Your task to perform on an android device: change the clock display to digital Image 0: 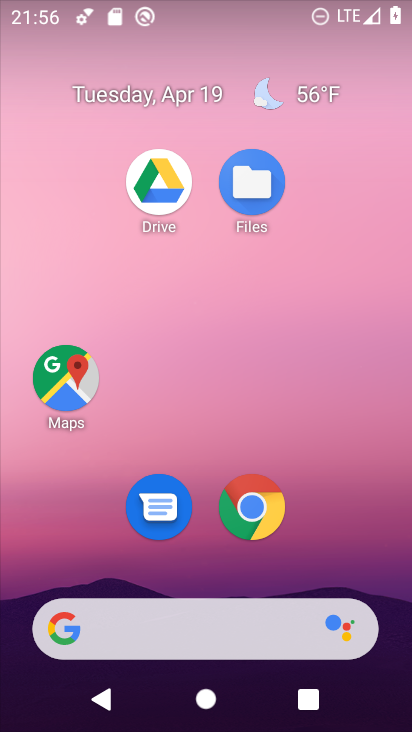
Step 0: drag from (355, 259) to (364, 77)
Your task to perform on an android device: change the clock display to digital Image 1: 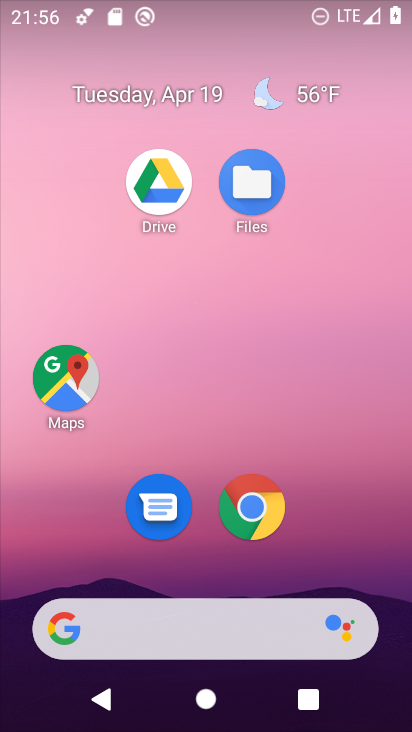
Step 1: drag from (349, 522) to (338, 78)
Your task to perform on an android device: change the clock display to digital Image 2: 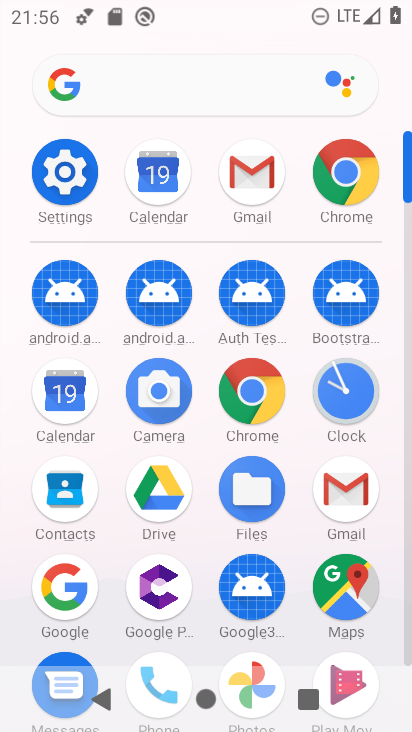
Step 2: click (348, 389)
Your task to perform on an android device: change the clock display to digital Image 3: 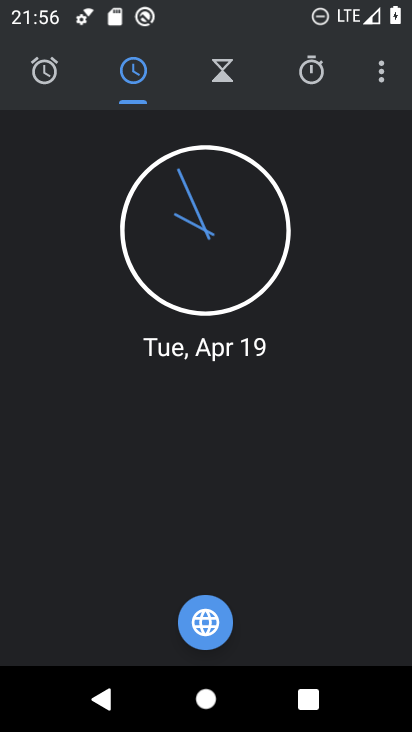
Step 3: click (380, 79)
Your task to perform on an android device: change the clock display to digital Image 4: 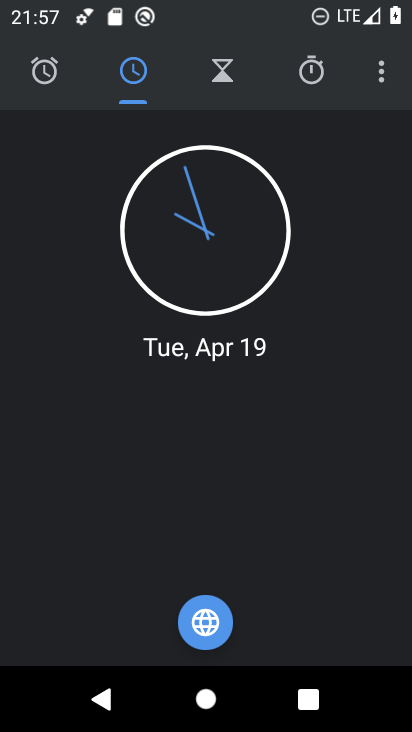
Step 4: click (380, 77)
Your task to perform on an android device: change the clock display to digital Image 5: 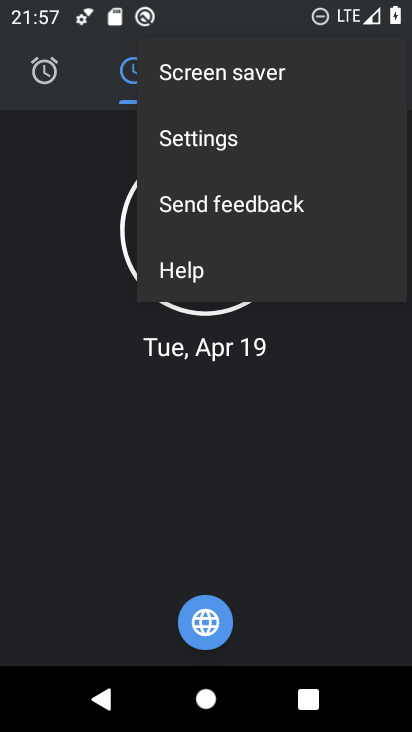
Step 5: click (319, 135)
Your task to perform on an android device: change the clock display to digital Image 6: 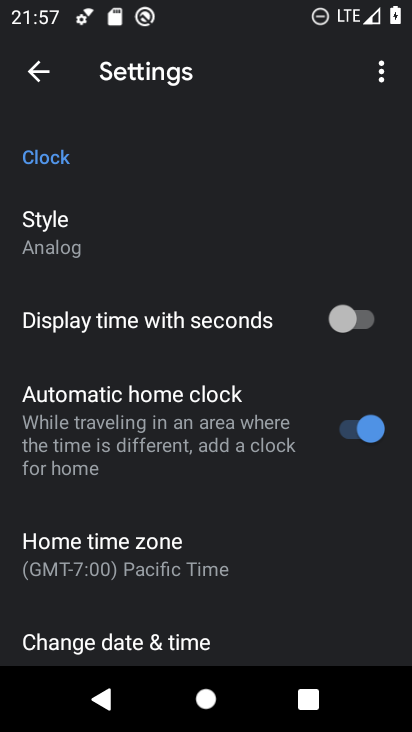
Step 6: click (174, 226)
Your task to perform on an android device: change the clock display to digital Image 7: 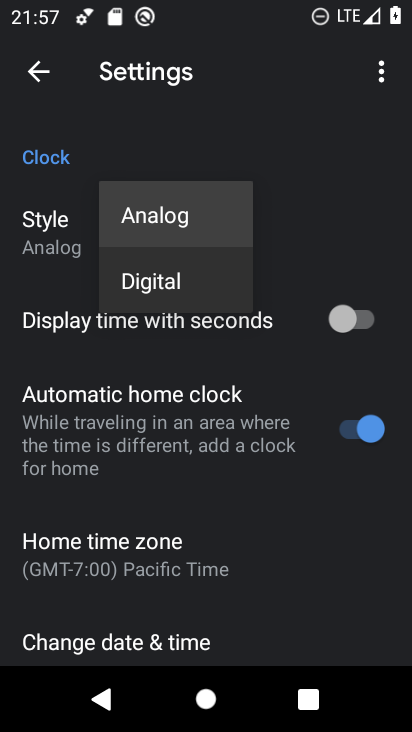
Step 7: click (172, 273)
Your task to perform on an android device: change the clock display to digital Image 8: 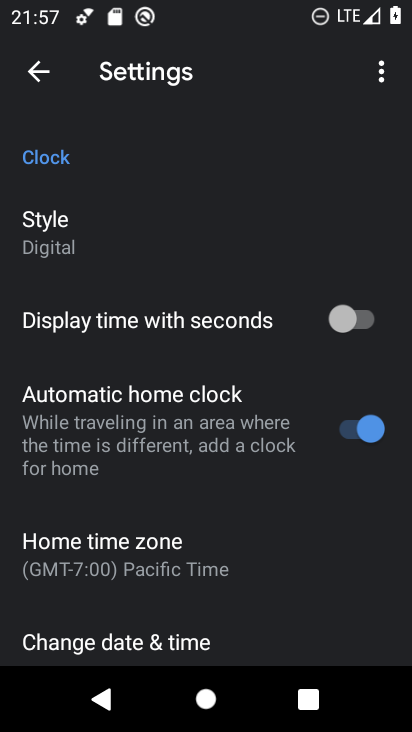
Step 8: click (43, 70)
Your task to perform on an android device: change the clock display to digital Image 9: 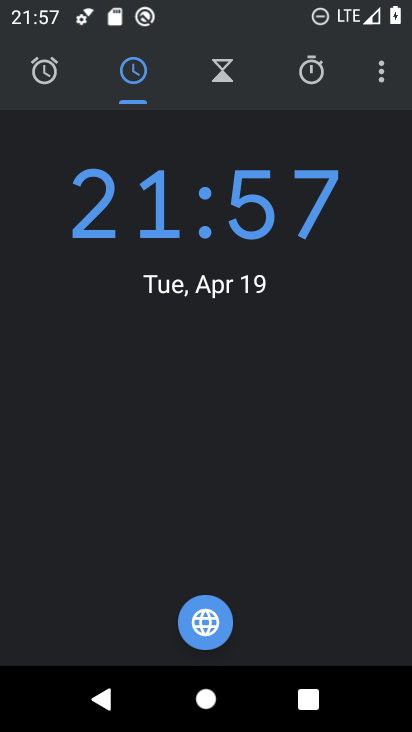
Step 9: task complete